Your task to perform on an android device: move a message to another label in the gmail app Image 0: 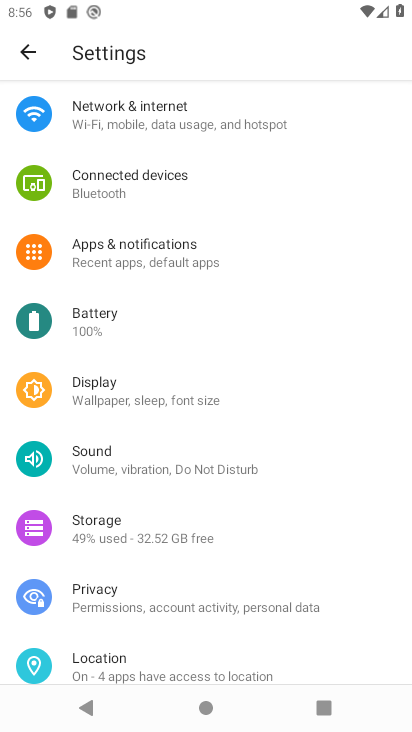
Step 0: press home button
Your task to perform on an android device: move a message to another label in the gmail app Image 1: 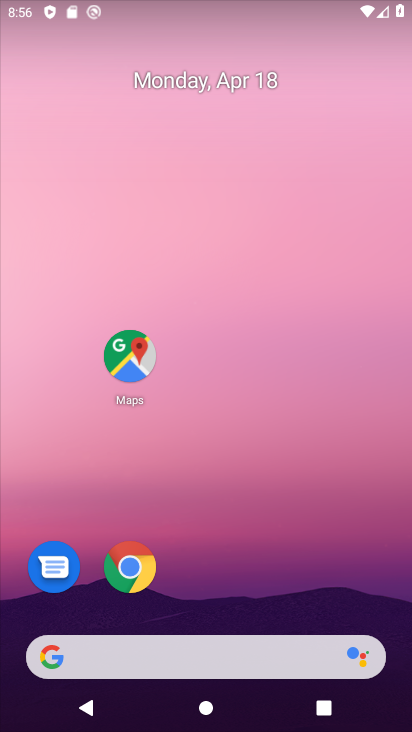
Step 1: drag from (335, 682) to (384, 367)
Your task to perform on an android device: move a message to another label in the gmail app Image 2: 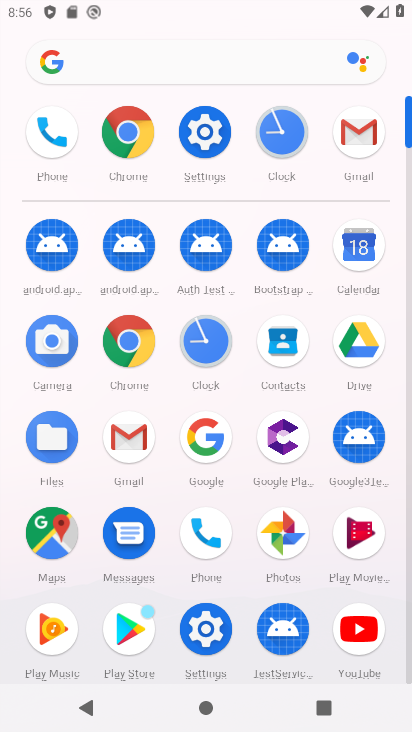
Step 2: click (371, 161)
Your task to perform on an android device: move a message to another label in the gmail app Image 3: 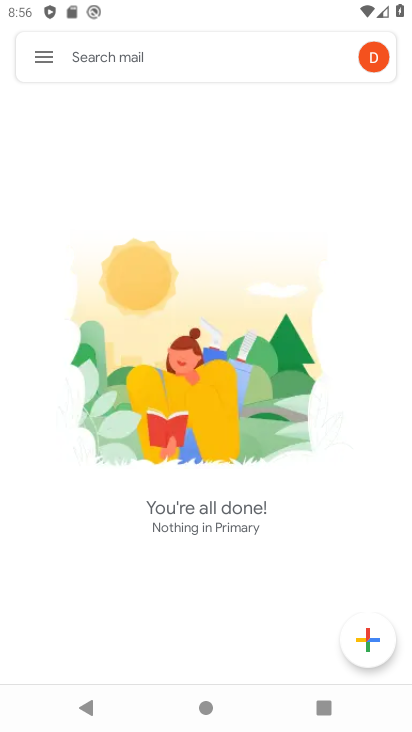
Step 3: click (40, 70)
Your task to perform on an android device: move a message to another label in the gmail app Image 4: 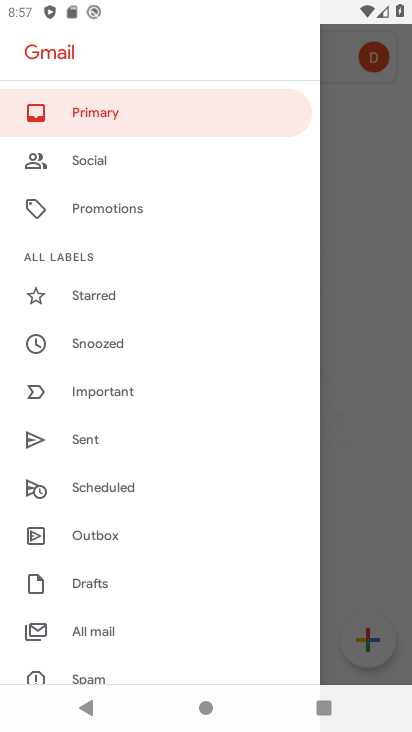
Step 4: drag from (100, 642) to (200, 492)
Your task to perform on an android device: move a message to another label in the gmail app Image 5: 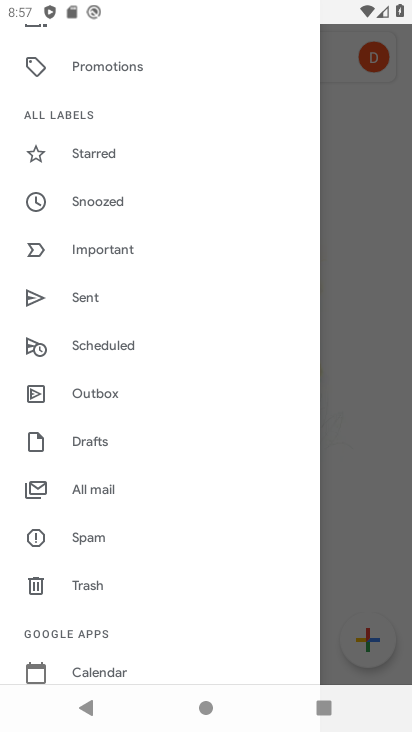
Step 5: drag from (128, 597) to (190, 505)
Your task to perform on an android device: move a message to another label in the gmail app Image 6: 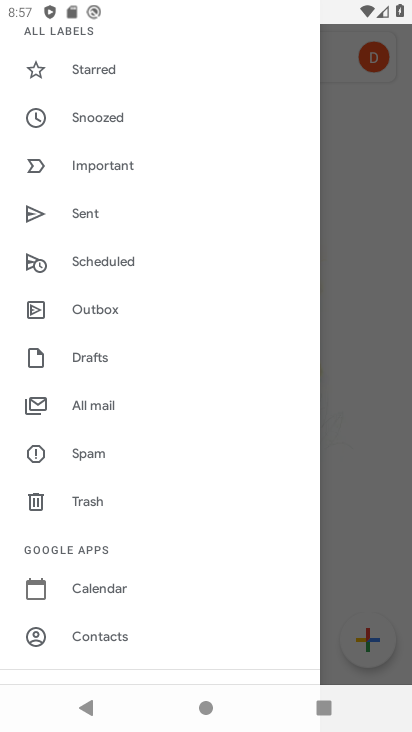
Step 6: drag from (132, 607) to (195, 528)
Your task to perform on an android device: move a message to another label in the gmail app Image 7: 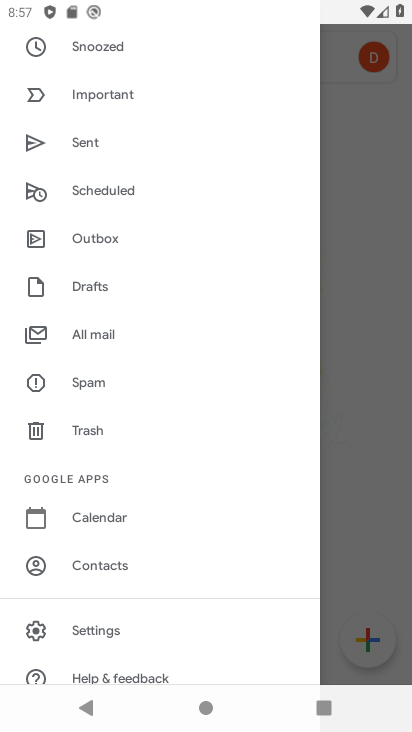
Step 7: click (111, 635)
Your task to perform on an android device: move a message to another label in the gmail app Image 8: 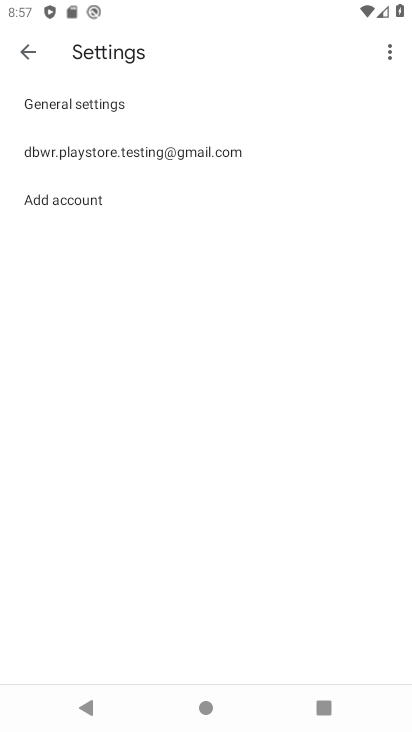
Step 8: click (144, 154)
Your task to perform on an android device: move a message to another label in the gmail app Image 9: 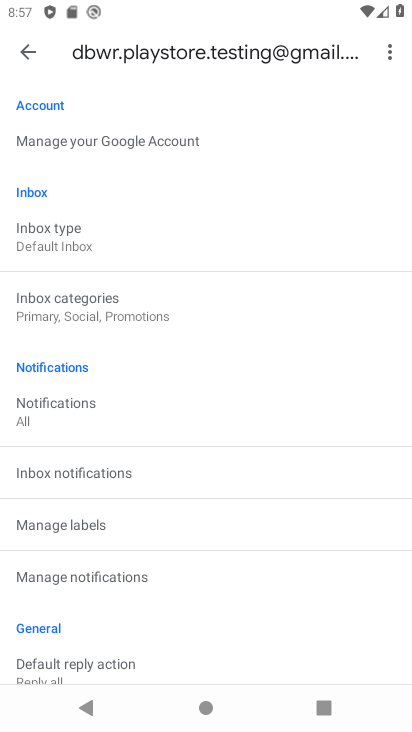
Step 9: click (63, 535)
Your task to perform on an android device: move a message to another label in the gmail app Image 10: 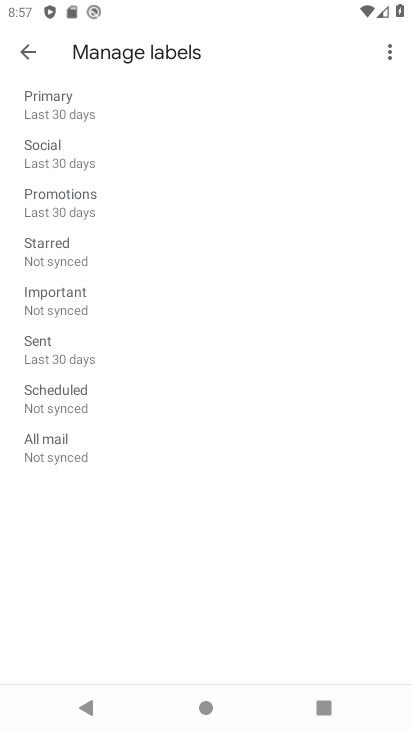
Step 10: click (99, 309)
Your task to perform on an android device: move a message to another label in the gmail app Image 11: 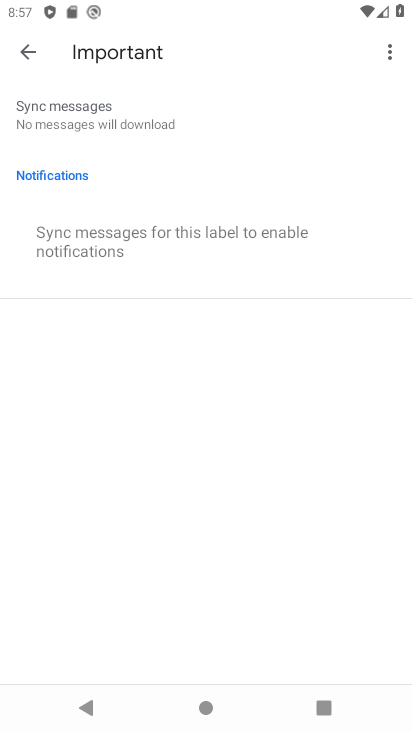
Step 11: task complete